Your task to perform on an android device: Open Chrome and go to settings Image 0: 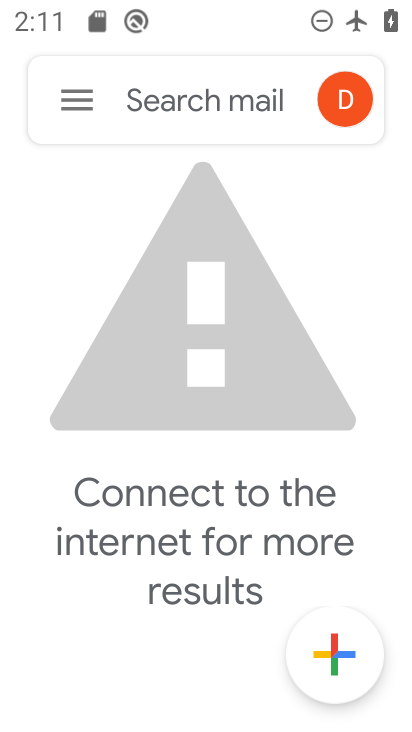
Step 0: press home button
Your task to perform on an android device: Open Chrome and go to settings Image 1: 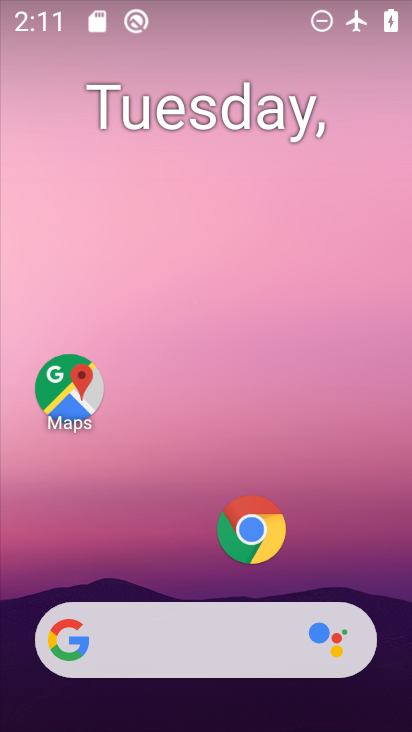
Step 1: click (261, 519)
Your task to perform on an android device: Open Chrome and go to settings Image 2: 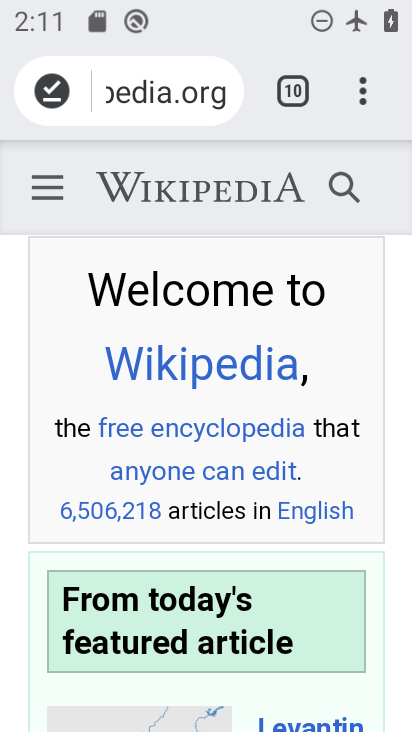
Step 2: click (363, 91)
Your task to perform on an android device: Open Chrome and go to settings Image 3: 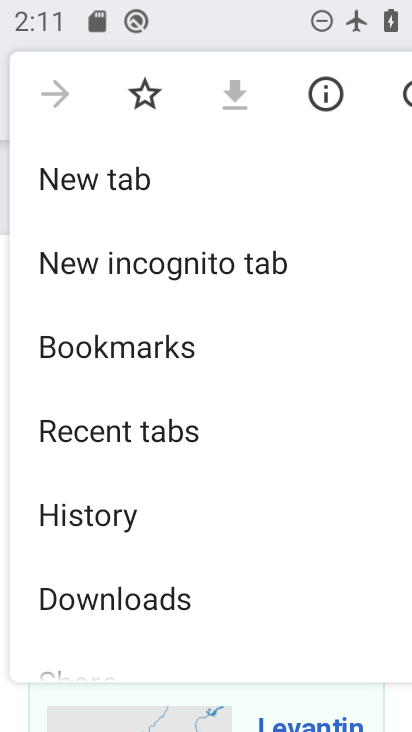
Step 3: drag from (196, 567) to (199, 249)
Your task to perform on an android device: Open Chrome and go to settings Image 4: 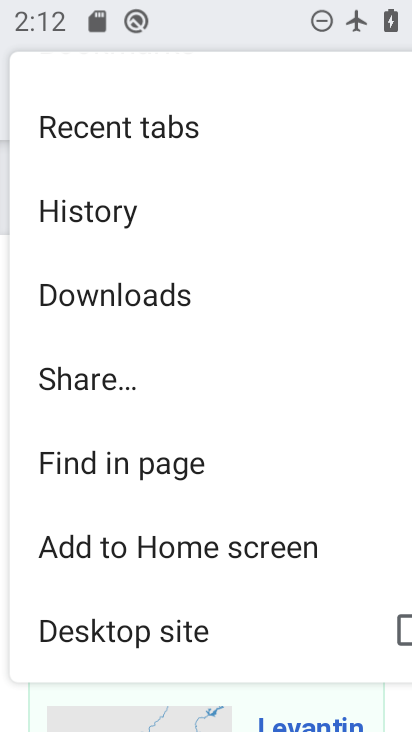
Step 4: drag from (107, 648) to (130, 464)
Your task to perform on an android device: Open Chrome and go to settings Image 5: 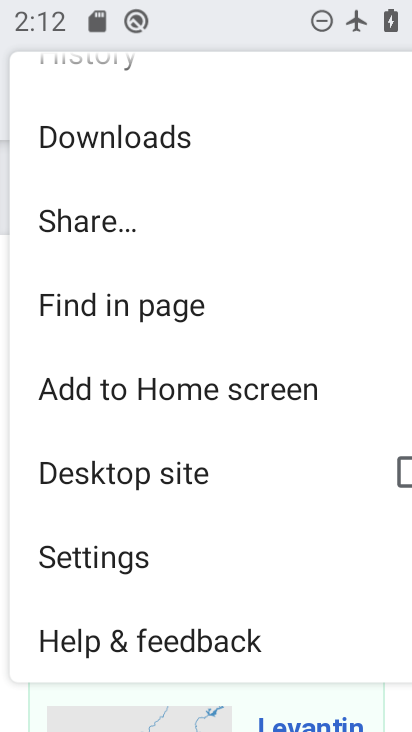
Step 5: click (88, 567)
Your task to perform on an android device: Open Chrome and go to settings Image 6: 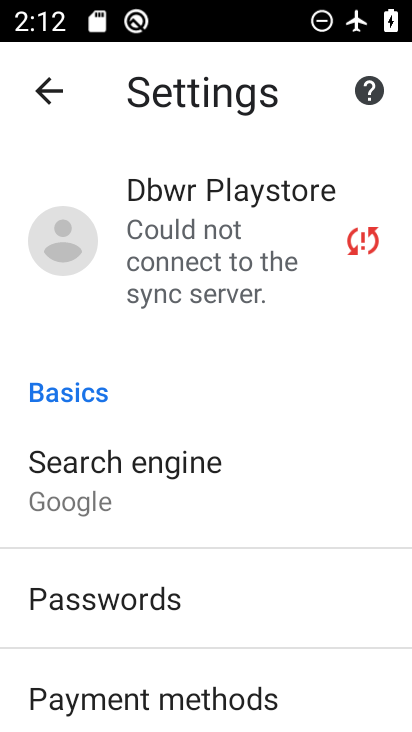
Step 6: task complete